Your task to perform on an android device: see creations saved in the google photos Image 0: 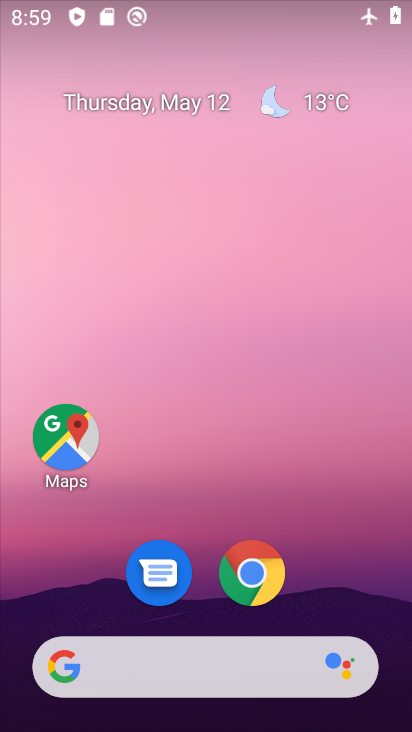
Step 0: drag from (395, 694) to (372, 279)
Your task to perform on an android device: see creations saved in the google photos Image 1: 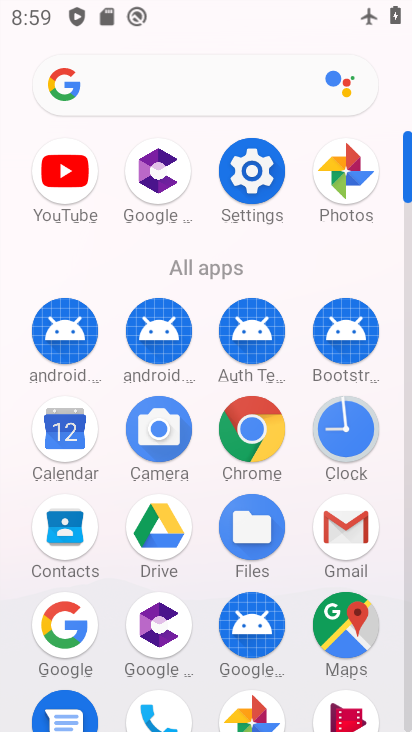
Step 1: click (357, 162)
Your task to perform on an android device: see creations saved in the google photos Image 2: 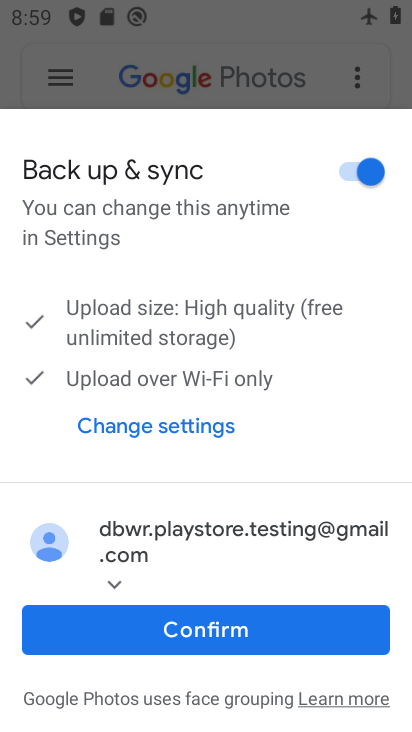
Step 2: task complete